Your task to perform on an android device: turn notification dots off Image 0: 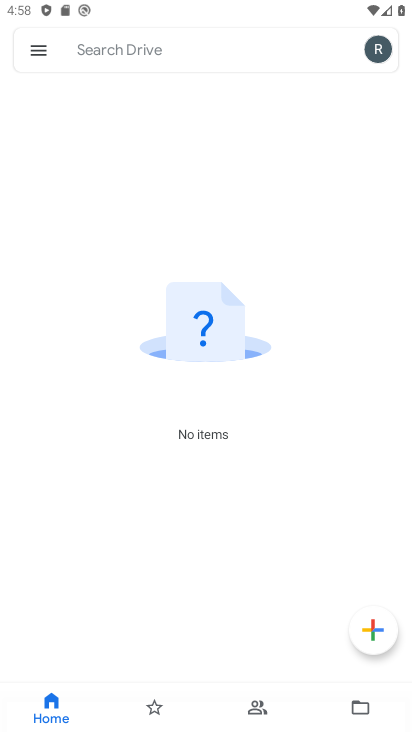
Step 0: press home button
Your task to perform on an android device: turn notification dots off Image 1: 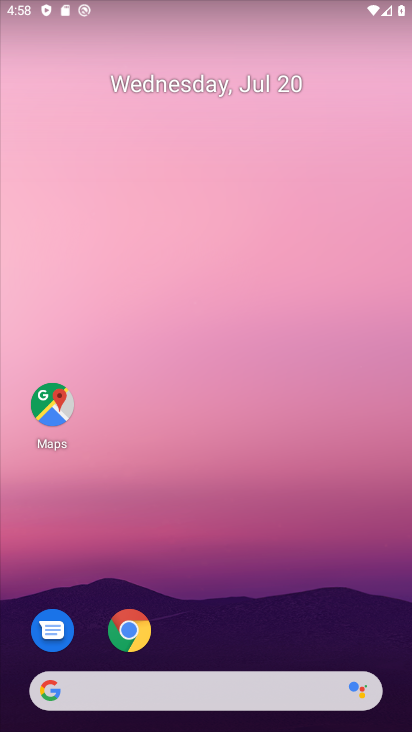
Step 1: drag from (251, 702) to (316, 138)
Your task to perform on an android device: turn notification dots off Image 2: 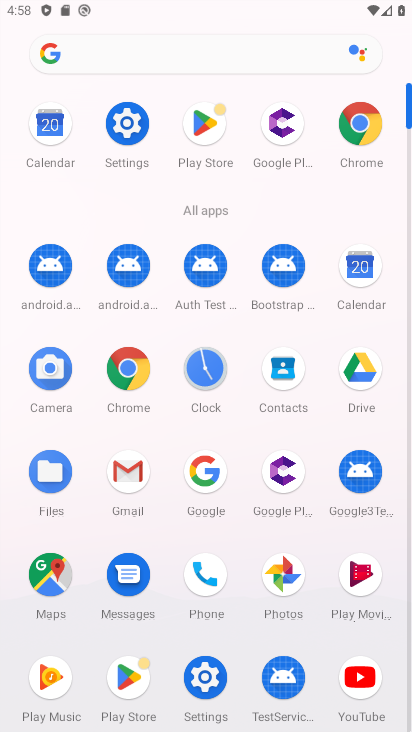
Step 2: click (125, 122)
Your task to perform on an android device: turn notification dots off Image 3: 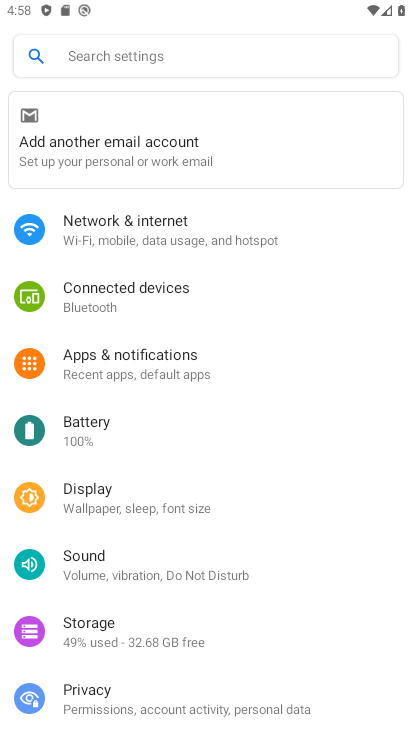
Step 3: click (149, 352)
Your task to perform on an android device: turn notification dots off Image 4: 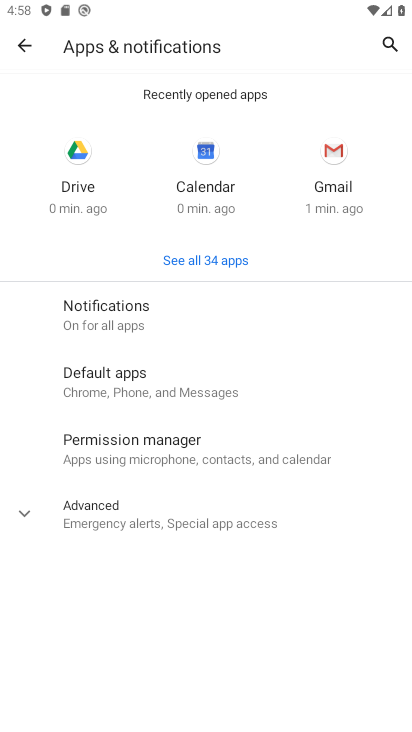
Step 4: click (128, 320)
Your task to perform on an android device: turn notification dots off Image 5: 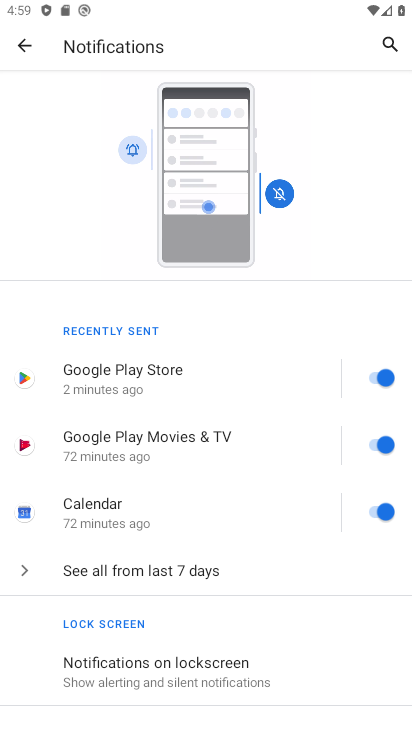
Step 5: drag from (154, 648) to (221, 146)
Your task to perform on an android device: turn notification dots off Image 6: 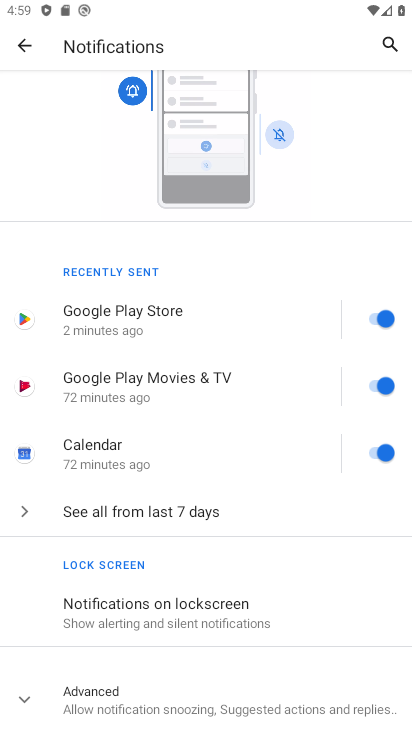
Step 6: click (174, 704)
Your task to perform on an android device: turn notification dots off Image 7: 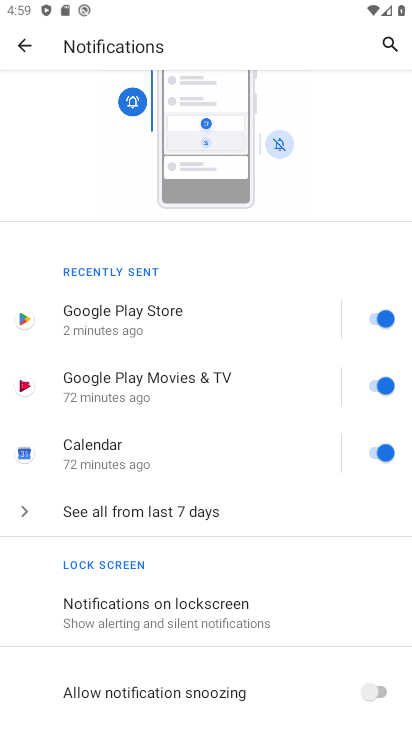
Step 7: drag from (234, 683) to (308, 237)
Your task to perform on an android device: turn notification dots off Image 8: 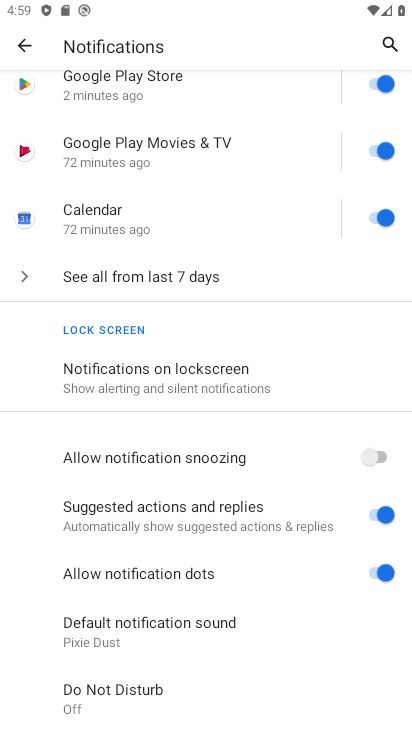
Step 8: click (374, 570)
Your task to perform on an android device: turn notification dots off Image 9: 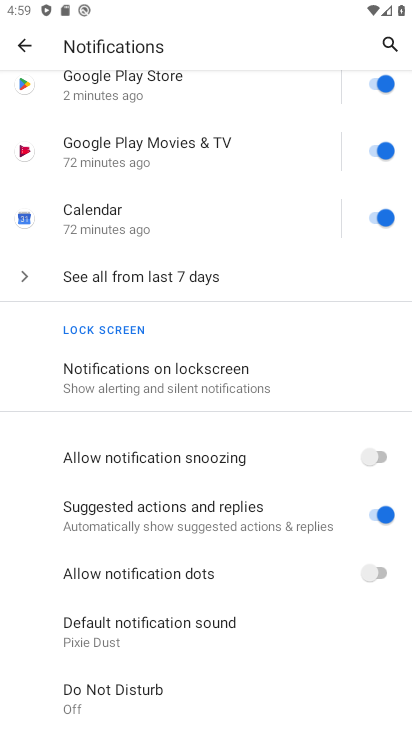
Step 9: task complete